Your task to perform on an android device: check android version Image 0: 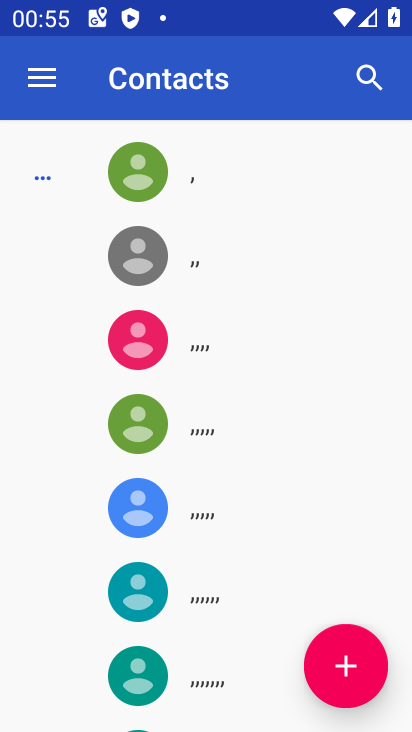
Step 0: press home button
Your task to perform on an android device: check android version Image 1: 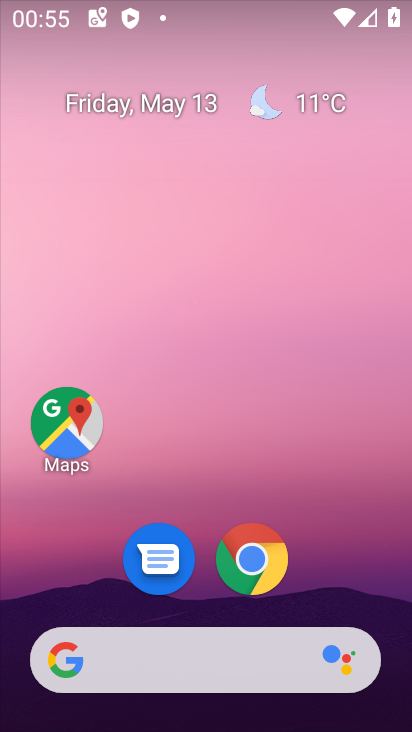
Step 1: drag from (67, 561) to (78, 78)
Your task to perform on an android device: check android version Image 2: 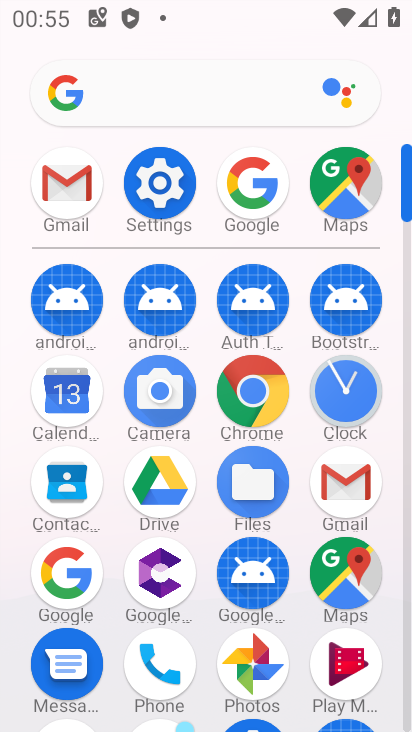
Step 2: click (148, 174)
Your task to perform on an android device: check android version Image 3: 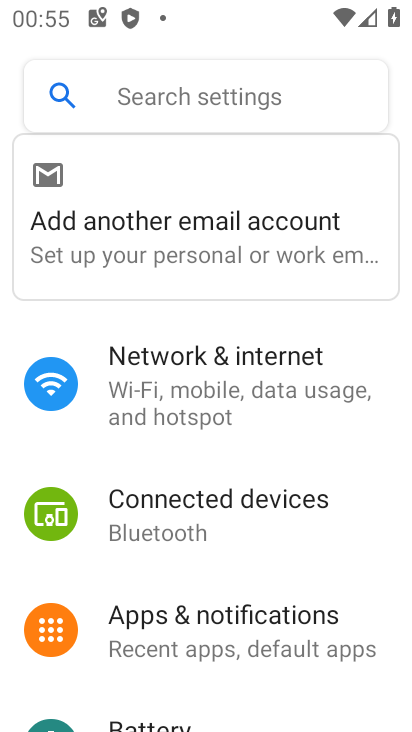
Step 3: drag from (282, 423) to (292, 21)
Your task to perform on an android device: check android version Image 4: 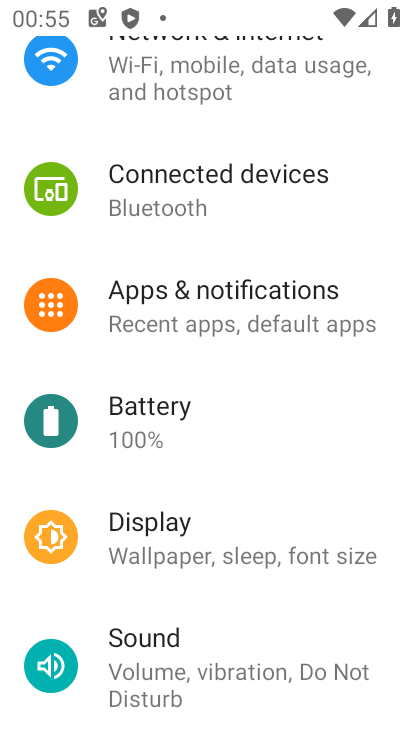
Step 4: drag from (277, 598) to (275, 70)
Your task to perform on an android device: check android version Image 5: 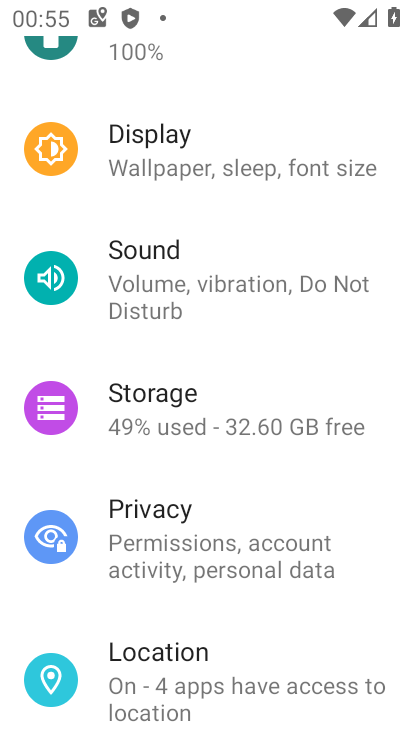
Step 5: drag from (244, 640) to (255, 190)
Your task to perform on an android device: check android version Image 6: 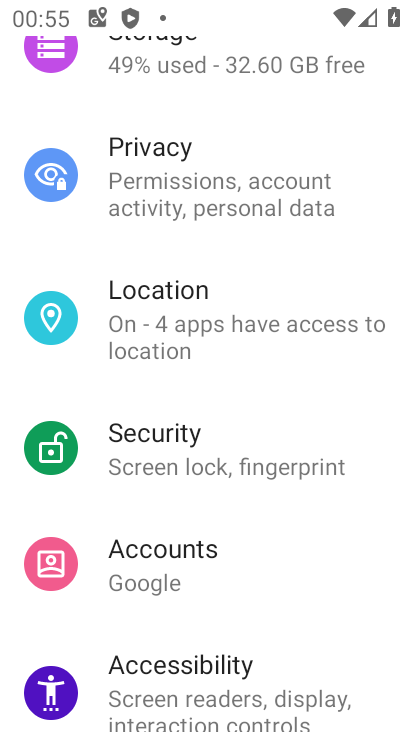
Step 6: drag from (256, 696) to (246, 267)
Your task to perform on an android device: check android version Image 7: 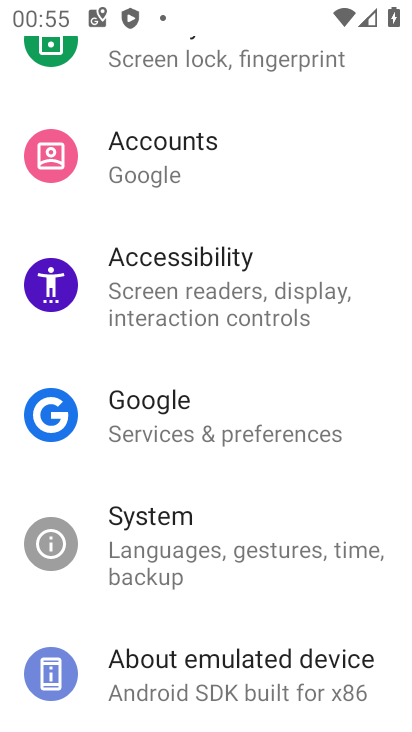
Step 7: click (257, 704)
Your task to perform on an android device: check android version Image 8: 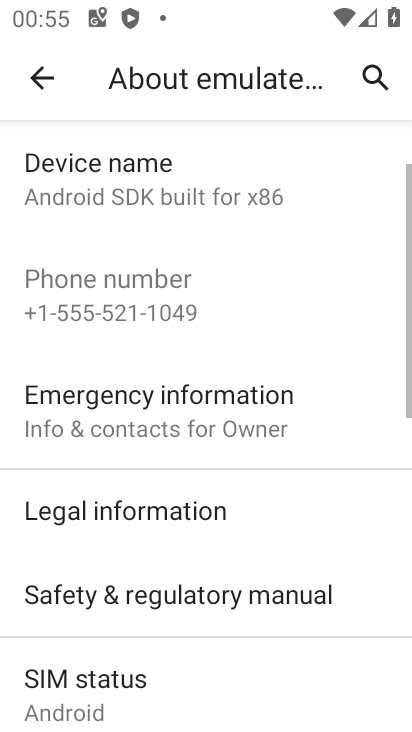
Step 8: task complete